Your task to perform on an android device: Go to Reddit.com Image 0: 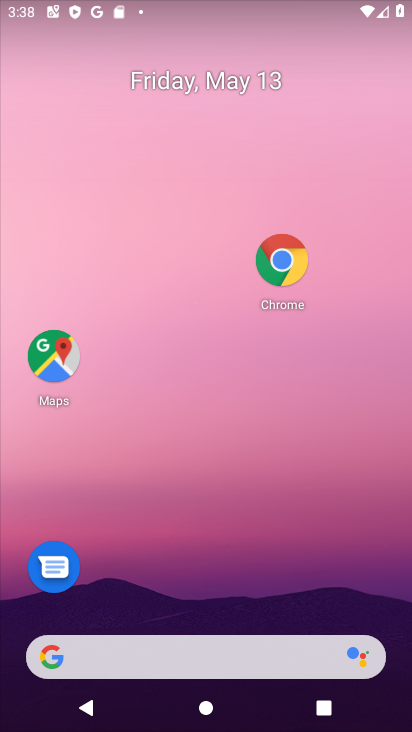
Step 0: press home button
Your task to perform on an android device: Go to Reddit.com Image 1: 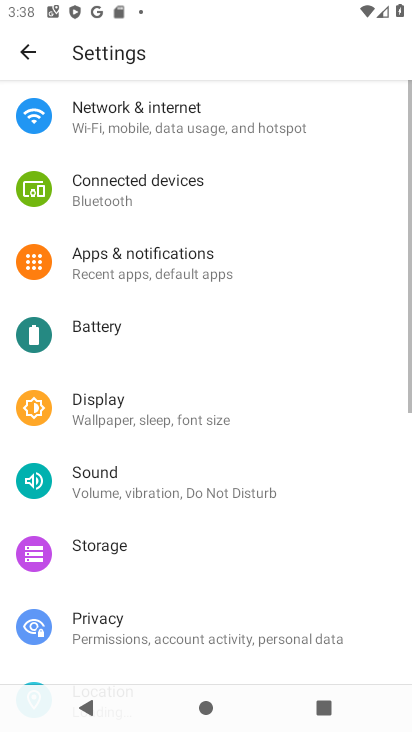
Step 1: press back button
Your task to perform on an android device: Go to Reddit.com Image 2: 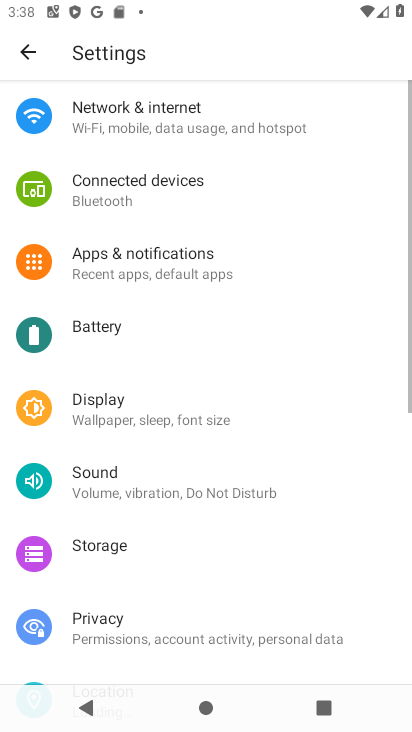
Step 2: drag from (262, 452) to (235, 378)
Your task to perform on an android device: Go to Reddit.com Image 3: 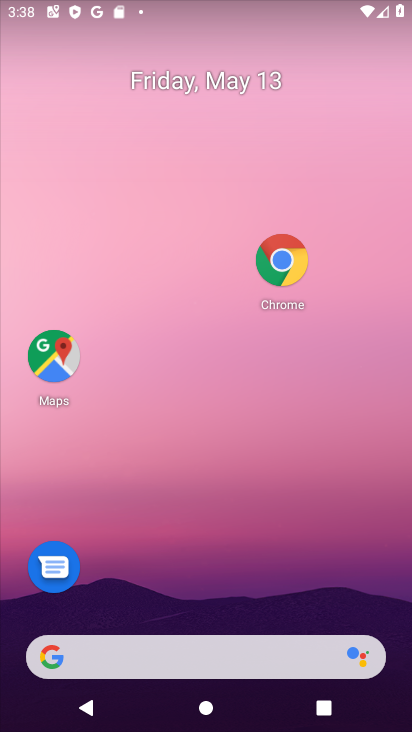
Step 3: press home button
Your task to perform on an android device: Go to Reddit.com Image 4: 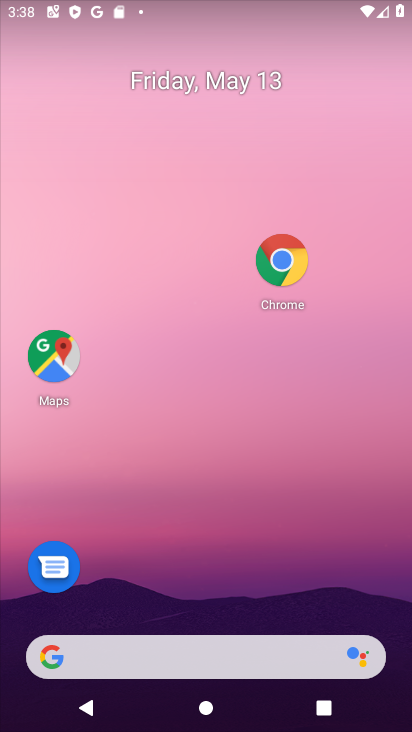
Step 4: drag from (324, 497) to (127, 8)
Your task to perform on an android device: Go to Reddit.com Image 5: 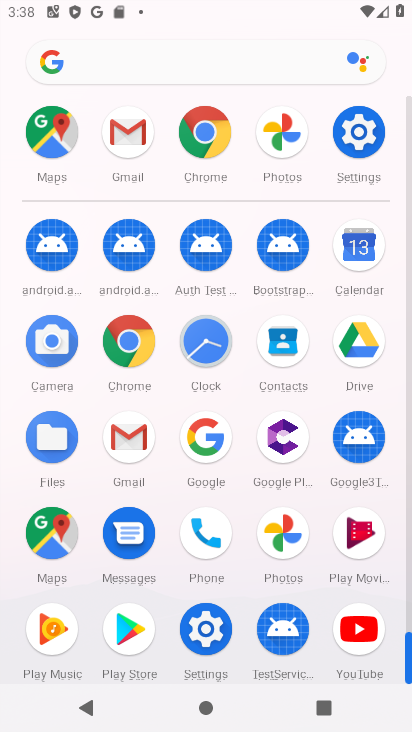
Step 5: click (196, 128)
Your task to perform on an android device: Go to Reddit.com Image 6: 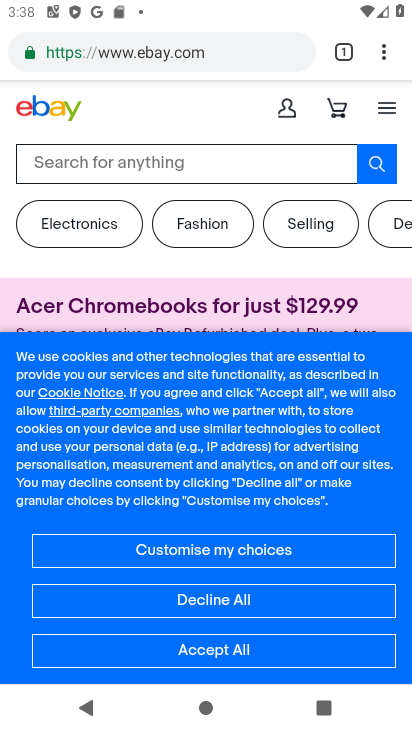
Step 6: drag from (384, 55) to (193, 107)
Your task to perform on an android device: Go to Reddit.com Image 7: 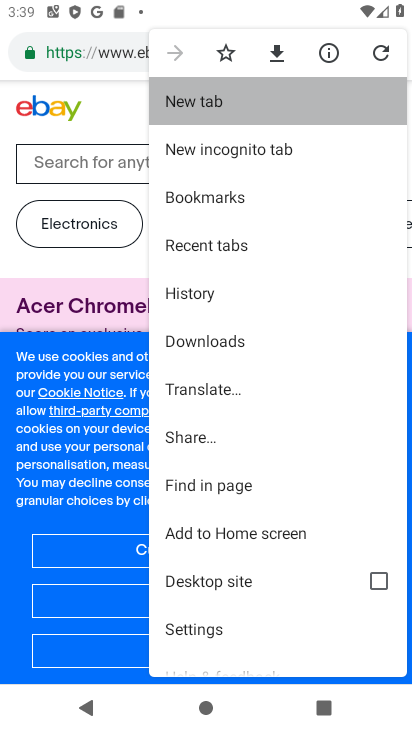
Step 7: click (193, 108)
Your task to perform on an android device: Go to Reddit.com Image 8: 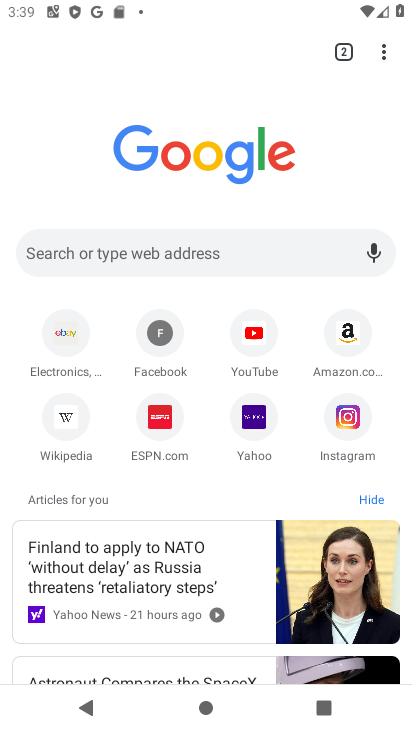
Step 8: click (52, 251)
Your task to perform on an android device: Go to Reddit.com Image 9: 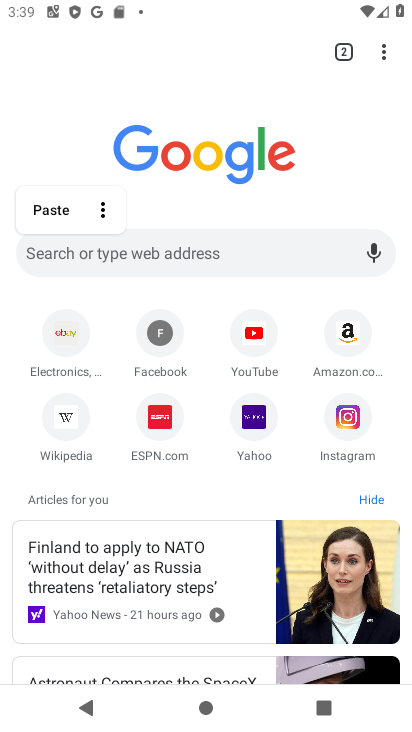
Step 9: type "reddit.com"
Your task to perform on an android device: Go to Reddit.com Image 10: 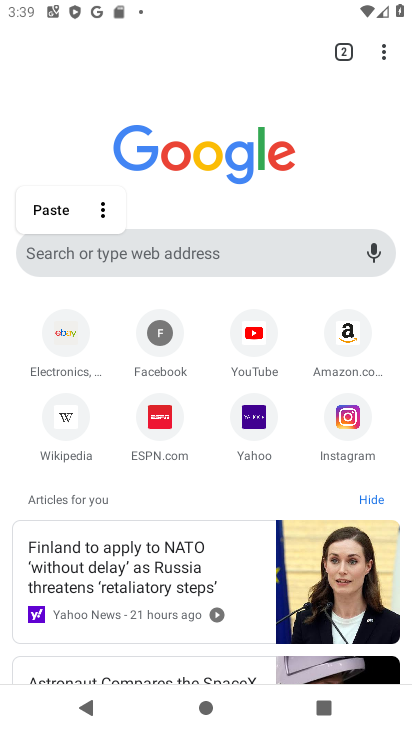
Step 10: click (117, 259)
Your task to perform on an android device: Go to Reddit.com Image 11: 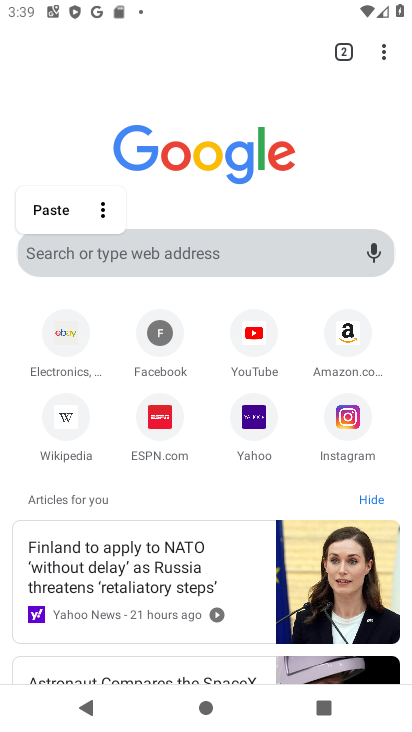
Step 11: click (117, 259)
Your task to perform on an android device: Go to Reddit.com Image 12: 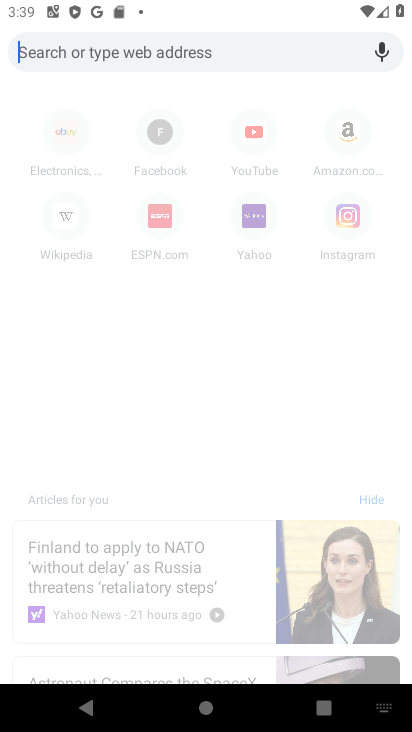
Step 12: type "reddit.com"
Your task to perform on an android device: Go to Reddit.com Image 13: 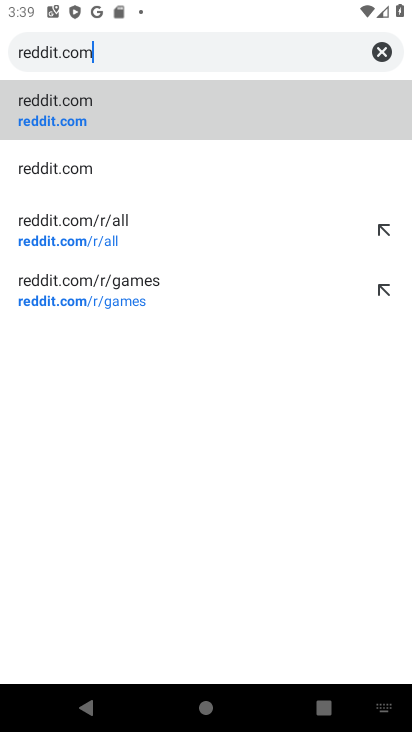
Step 13: click (41, 133)
Your task to perform on an android device: Go to Reddit.com Image 14: 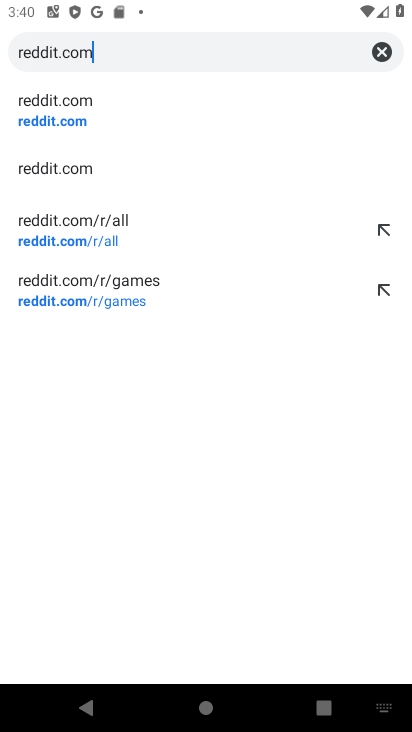
Step 14: click (46, 112)
Your task to perform on an android device: Go to Reddit.com Image 15: 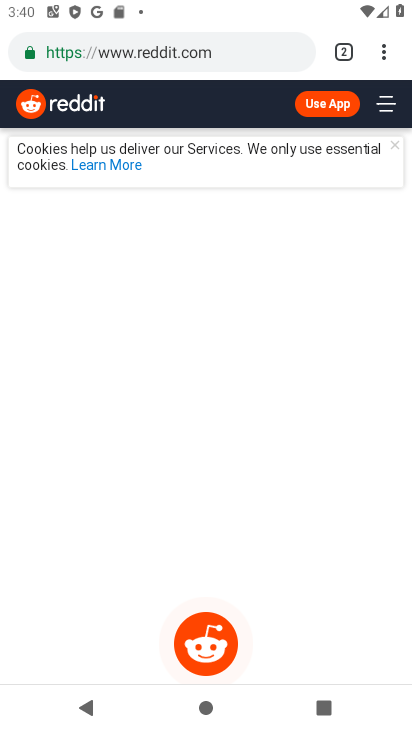
Step 15: task complete